Your task to perform on an android device: open a new tab in the chrome app Image 0: 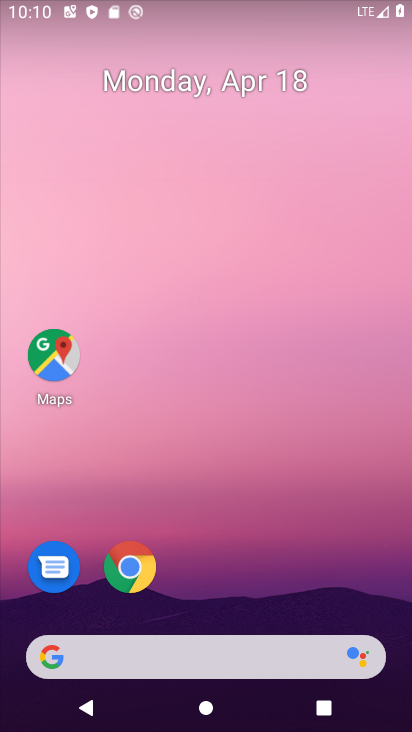
Step 0: click (138, 551)
Your task to perform on an android device: open a new tab in the chrome app Image 1: 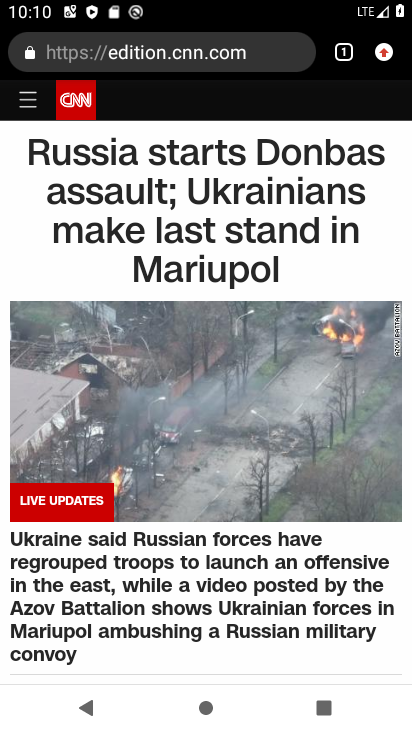
Step 1: click (379, 43)
Your task to perform on an android device: open a new tab in the chrome app Image 2: 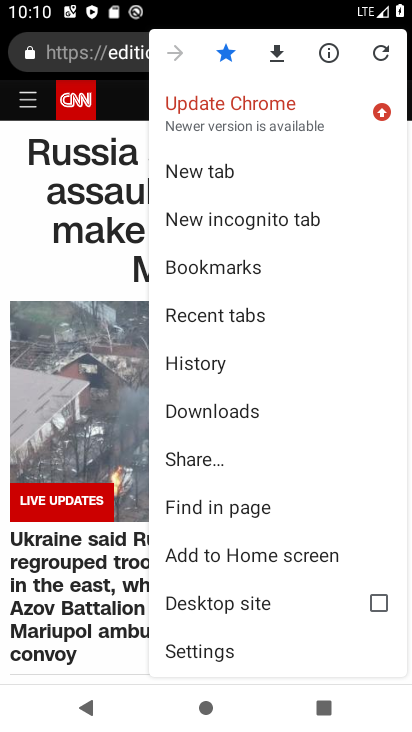
Step 2: click (188, 172)
Your task to perform on an android device: open a new tab in the chrome app Image 3: 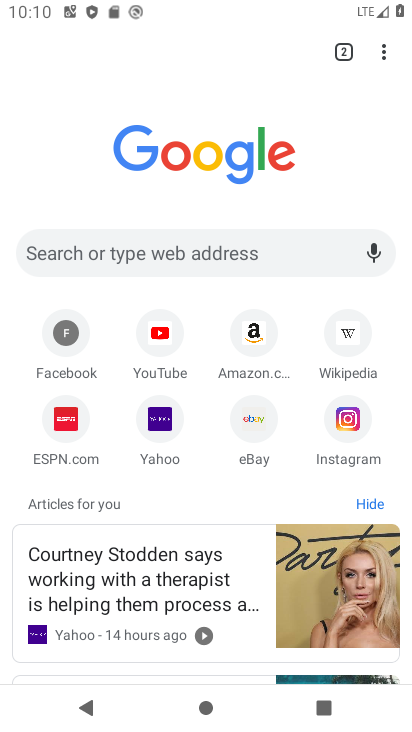
Step 3: task complete